Your task to perform on an android device: Clear the cart on bestbuy.com. Add "usb-c to usb-a" to the cart on bestbuy.com Image 0: 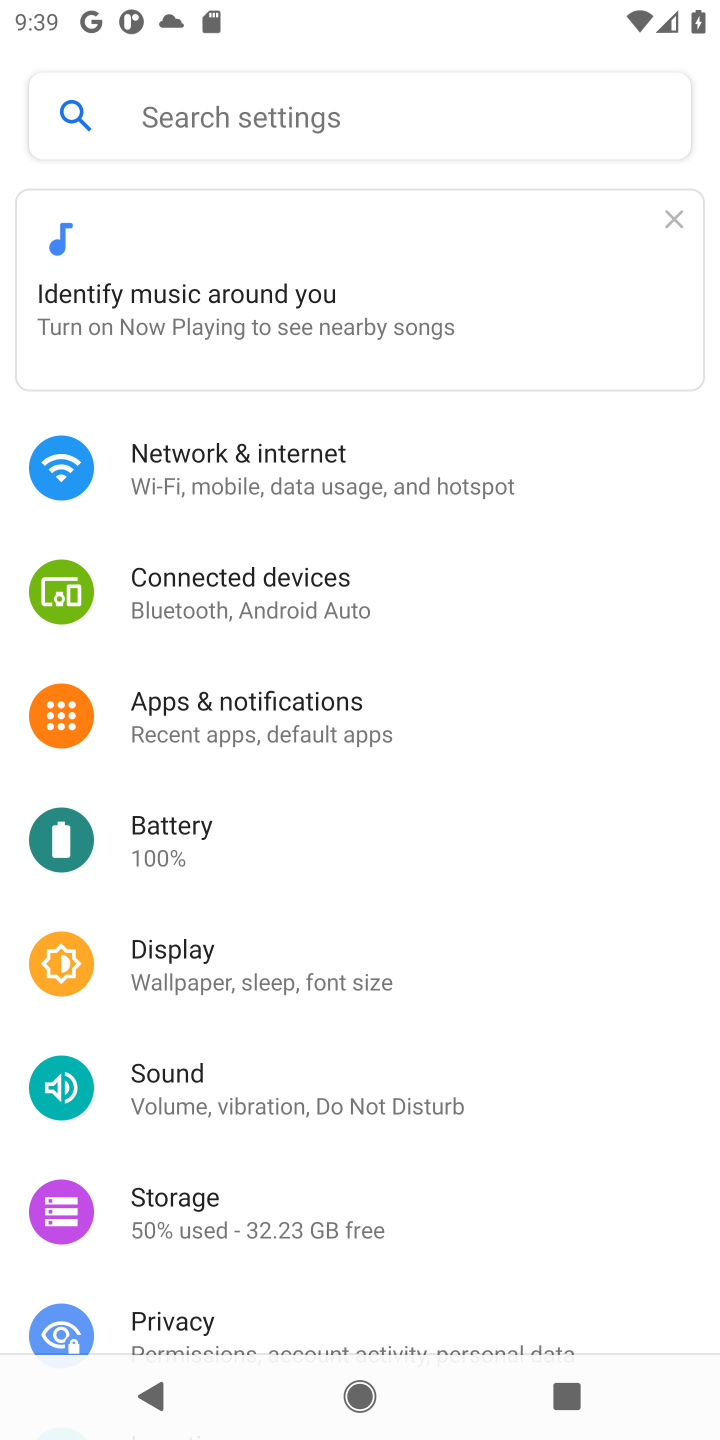
Step 0: press home button
Your task to perform on an android device: Clear the cart on bestbuy.com. Add "usb-c to usb-a" to the cart on bestbuy.com Image 1: 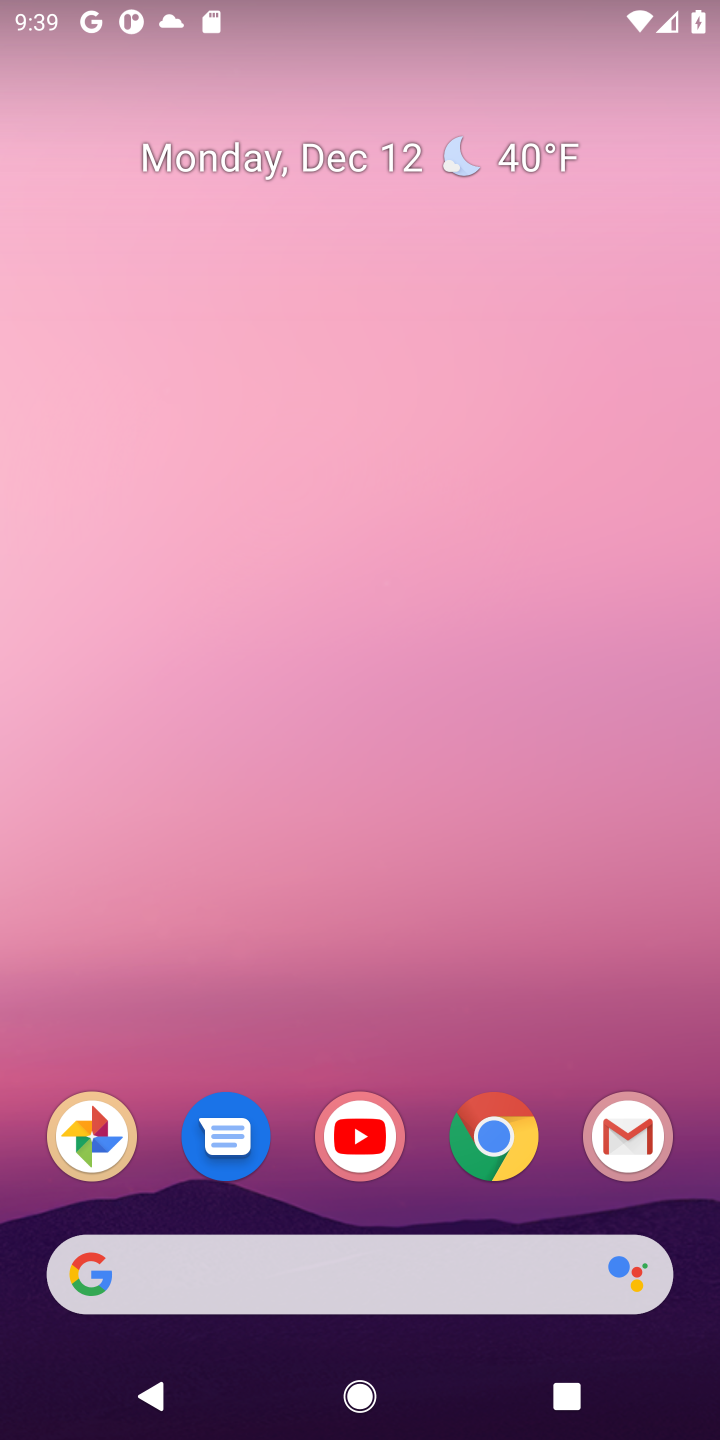
Step 1: click (497, 1143)
Your task to perform on an android device: Clear the cart on bestbuy.com. Add "usb-c to usb-a" to the cart on bestbuy.com Image 2: 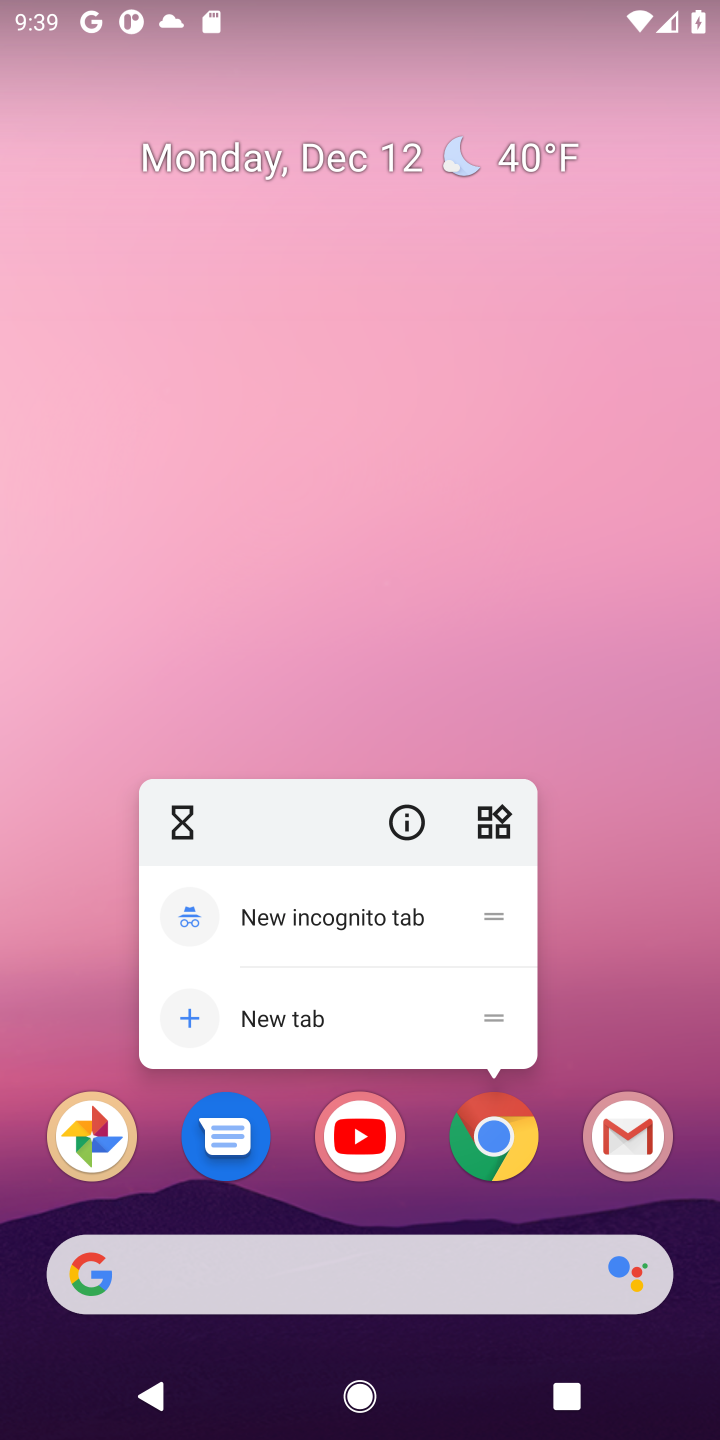
Step 2: click (497, 1143)
Your task to perform on an android device: Clear the cart on bestbuy.com. Add "usb-c to usb-a" to the cart on bestbuy.com Image 3: 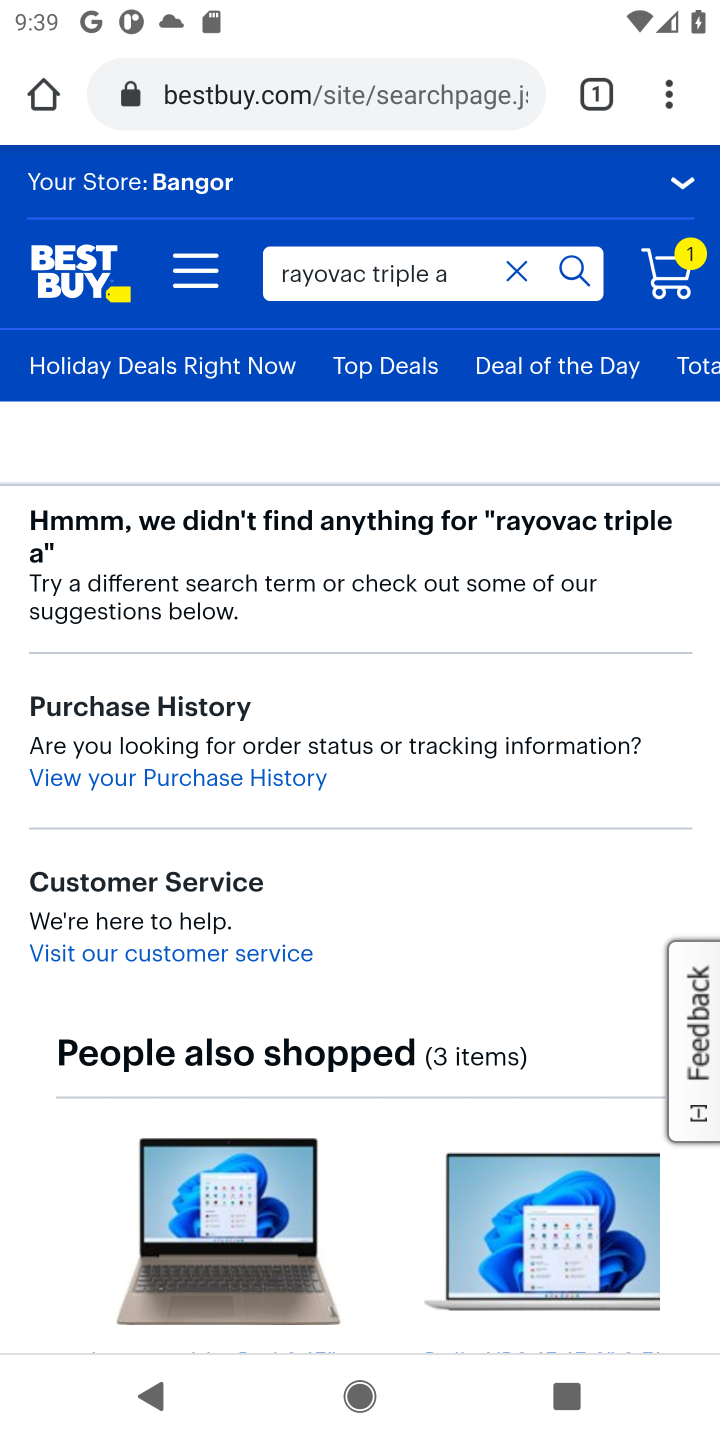
Step 3: click (683, 272)
Your task to perform on an android device: Clear the cart on bestbuy.com. Add "usb-c to usb-a" to the cart on bestbuy.com Image 4: 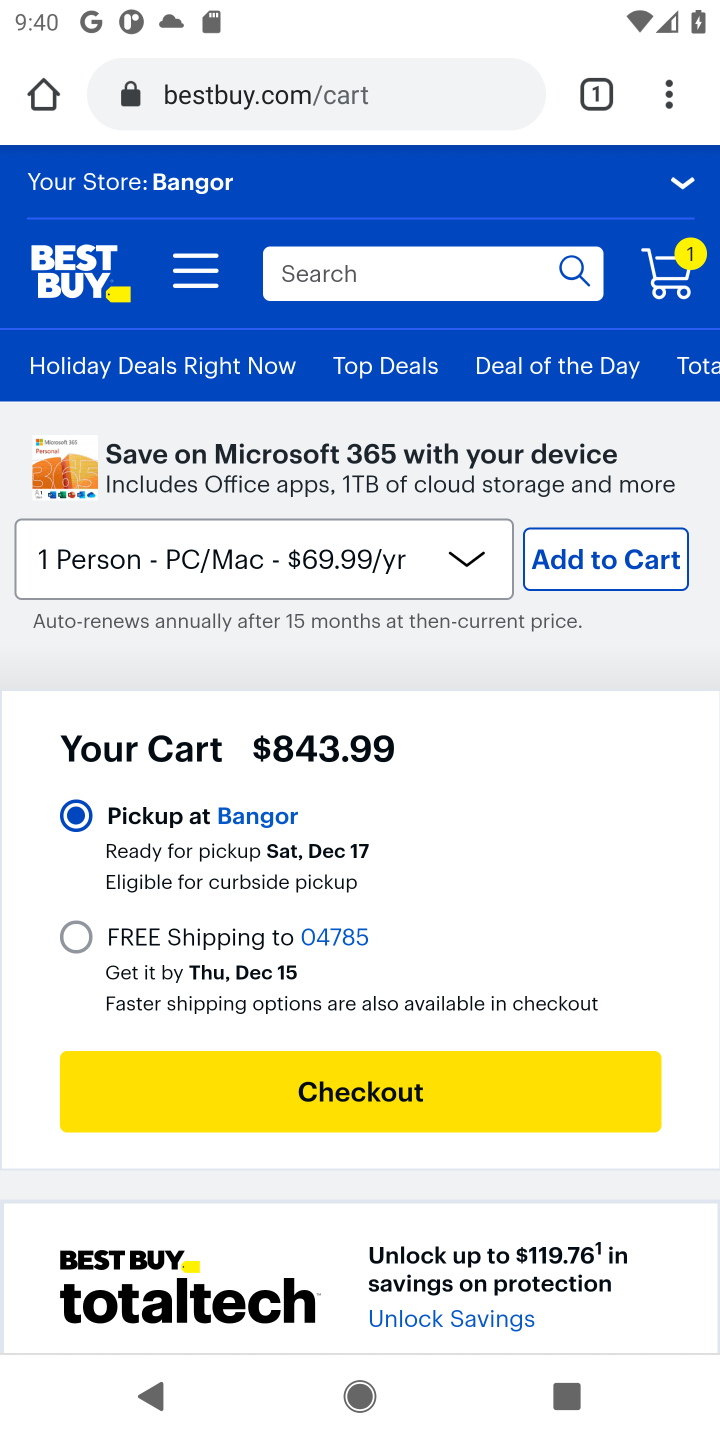
Step 4: drag from (346, 832) to (374, 314)
Your task to perform on an android device: Clear the cart on bestbuy.com. Add "usb-c to usb-a" to the cart on bestbuy.com Image 5: 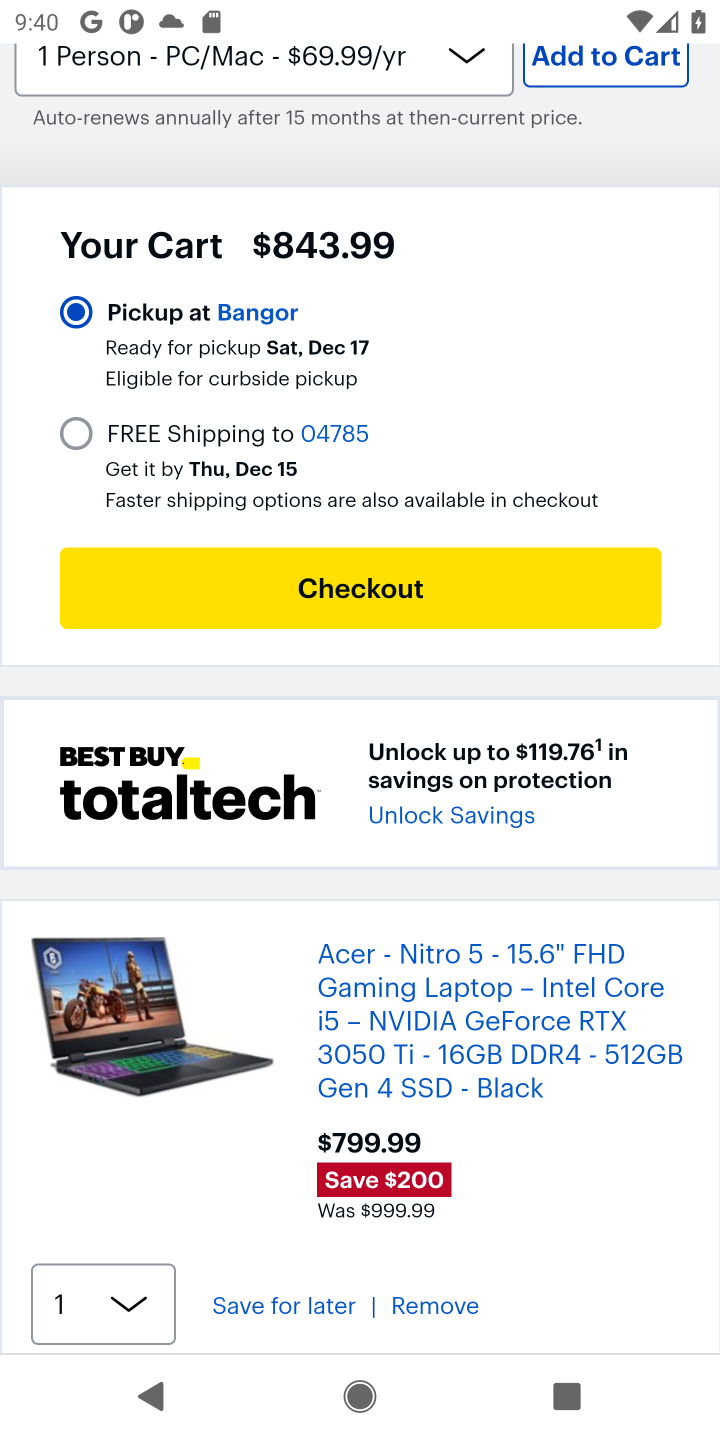
Step 5: click (410, 1306)
Your task to perform on an android device: Clear the cart on bestbuy.com. Add "usb-c to usb-a" to the cart on bestbuy.com Image 6: 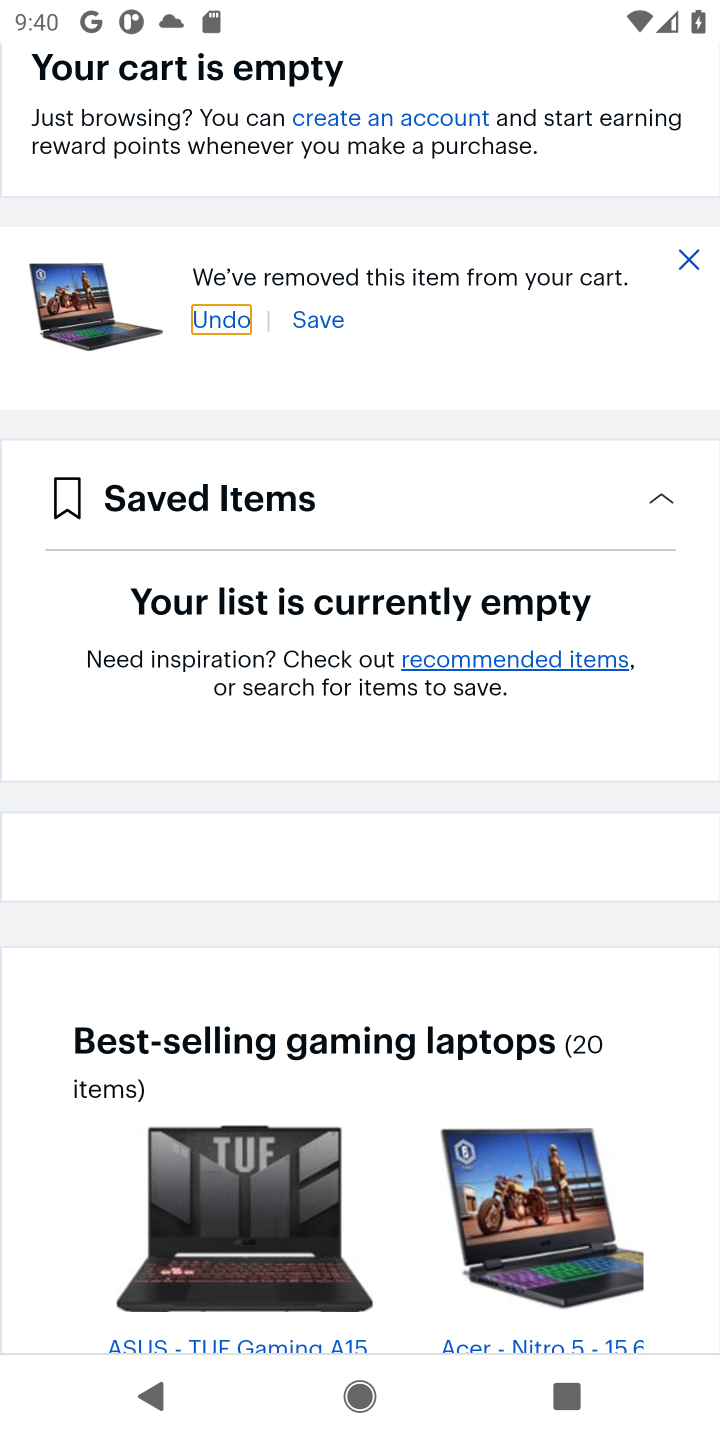
Step 6: drag from (443, 520) to (385, 910)
Your task to perform on an android device: Clear the cart on bestbuy.com. Add "usb-c to usb-a" to the cart on bestbuy.com Image 7: 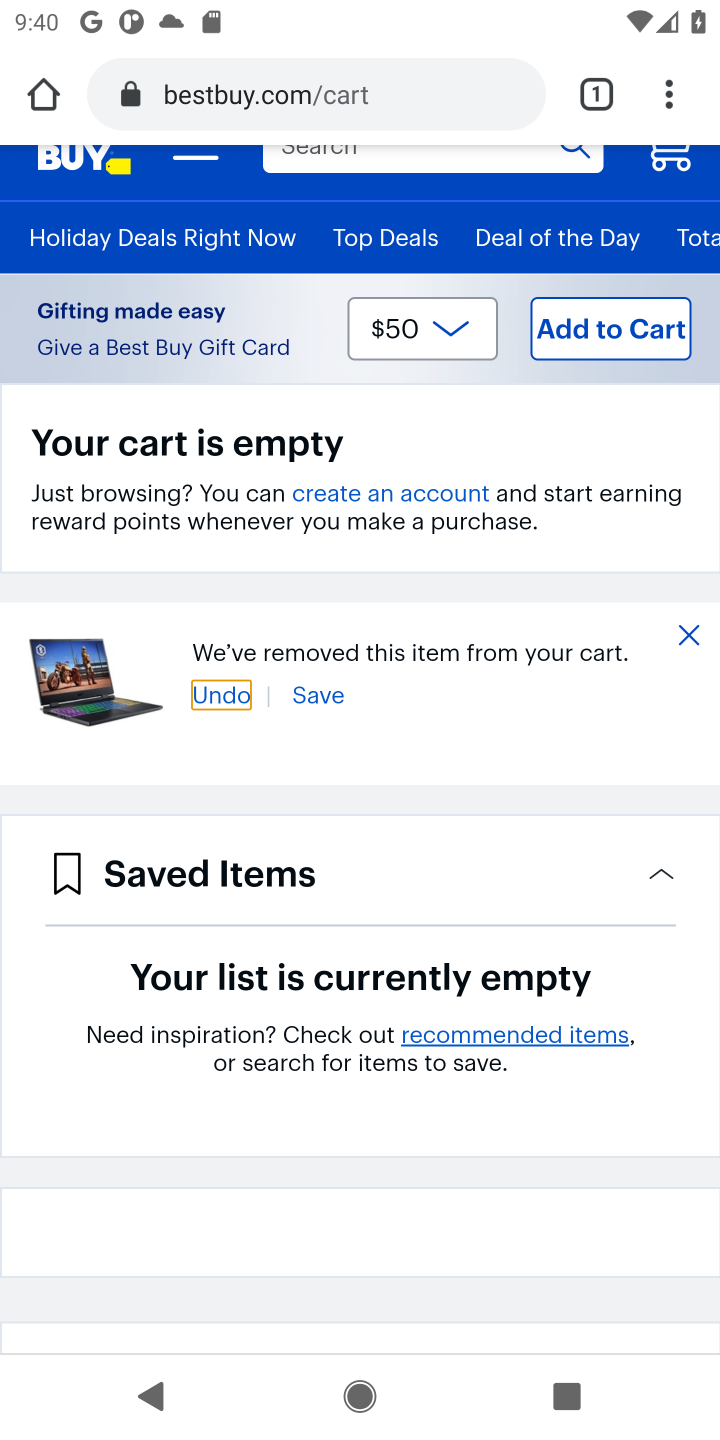
Step 7: drag from (268, 349) to (241, 626)
Your task to perform on an android device: Clear the cart on bestbuy.com. Add "usb-c to usb-a" to the cart on bestbuy.com Image 8: 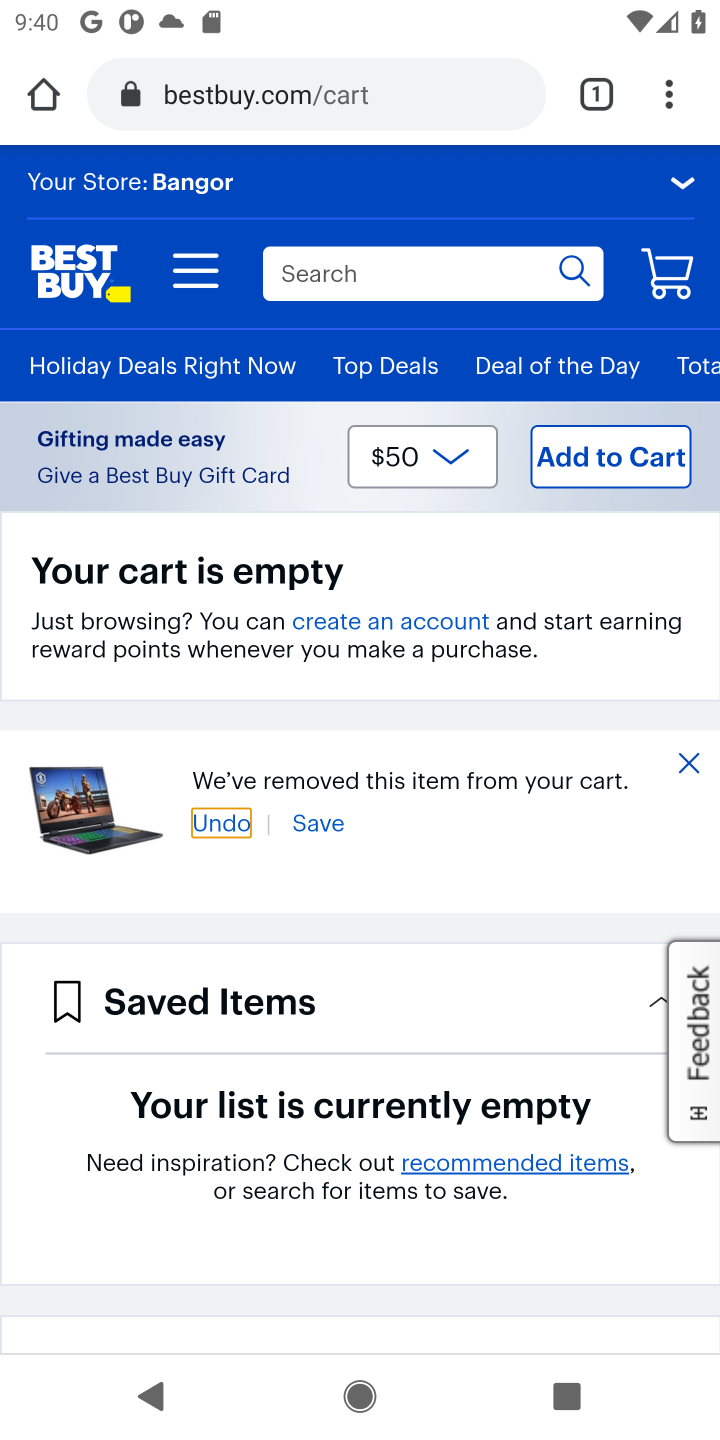
Step 8: click (319, 282)
Your task to perform on an android device: Clear the cart on bestbuy.com. Add "usb-c to usb-a" to the cart on bestbuy.com Image 9: 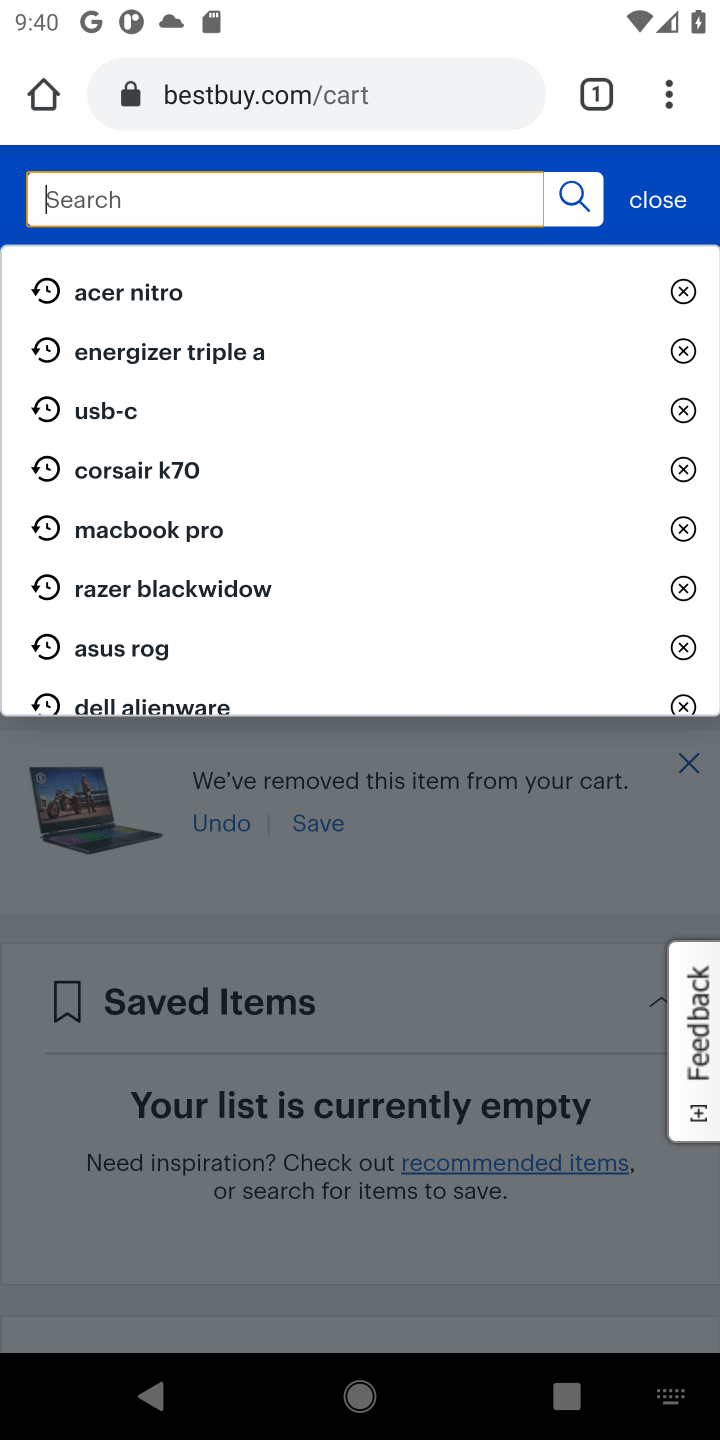
Step 9: type "usb-c to usb-a"
Your task to perform on an android device: Clear the cart on bestbuy.com. Add "usb-c to usb-a" to the cart on bestbuy.com Image 10: 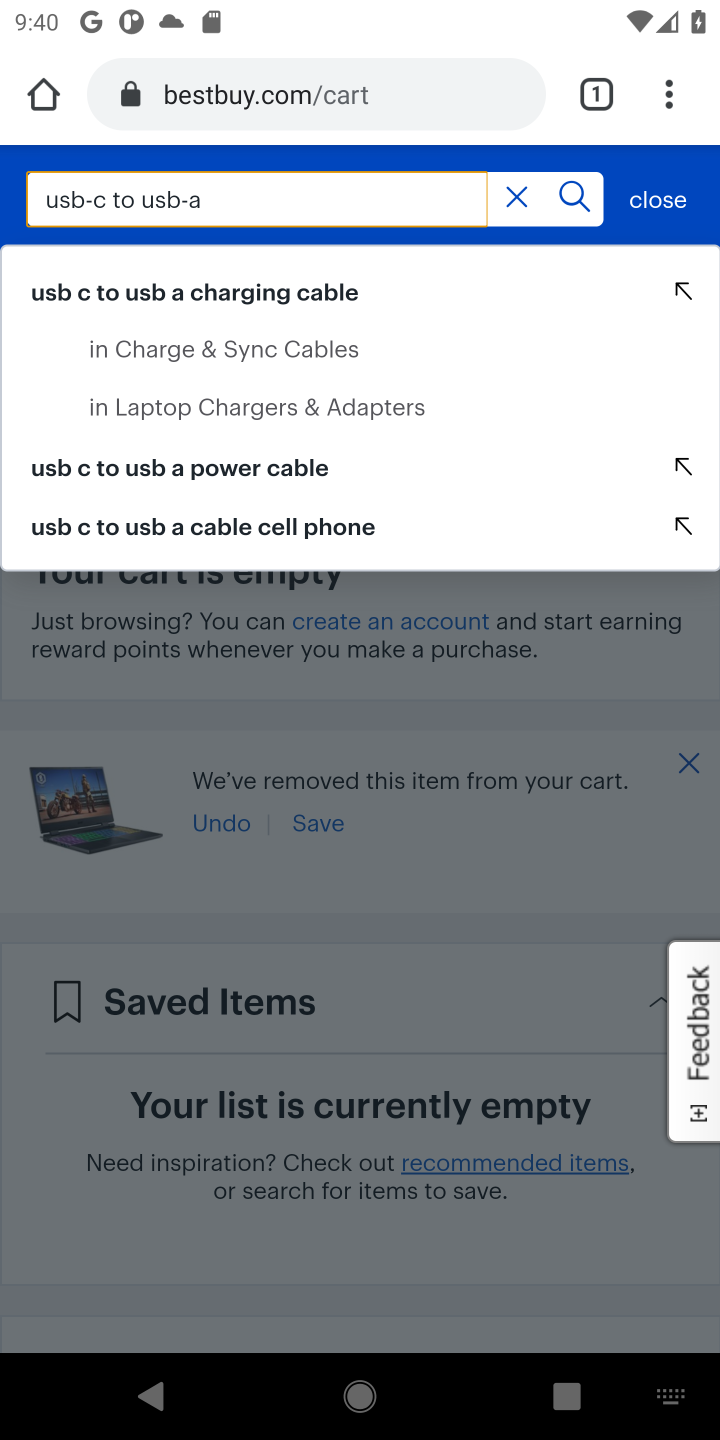
Step 10: click (223, 299)
Your task to perform on an android device: Clear the cart on bestbuy.com. Add "usb-c to usb-a" to the cart on bestbuy.com Image 11: 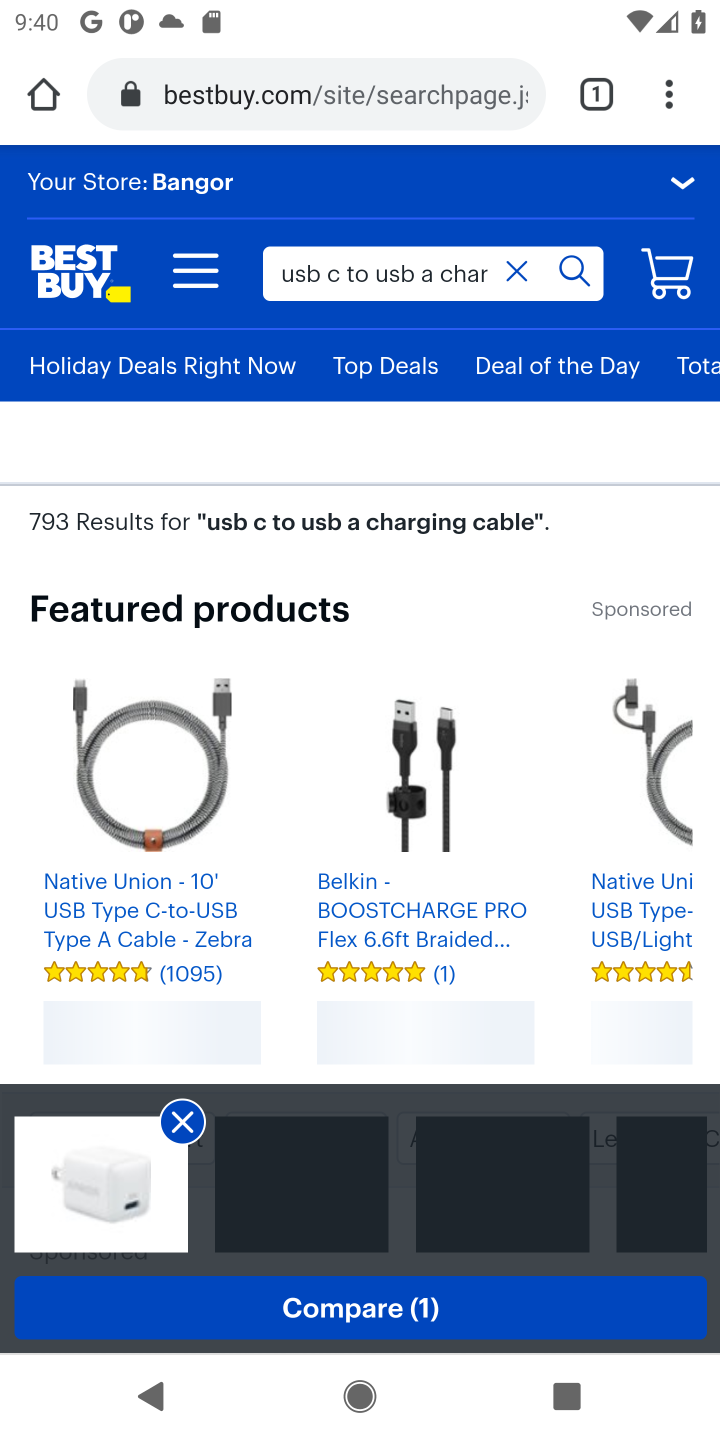
Step 11: click (172, 1118)
Your task to perform on an android device: Clear the cart on bestbuy.com. Add "usb-c to usb-a" to the cart on bestbuy.com Image 12: 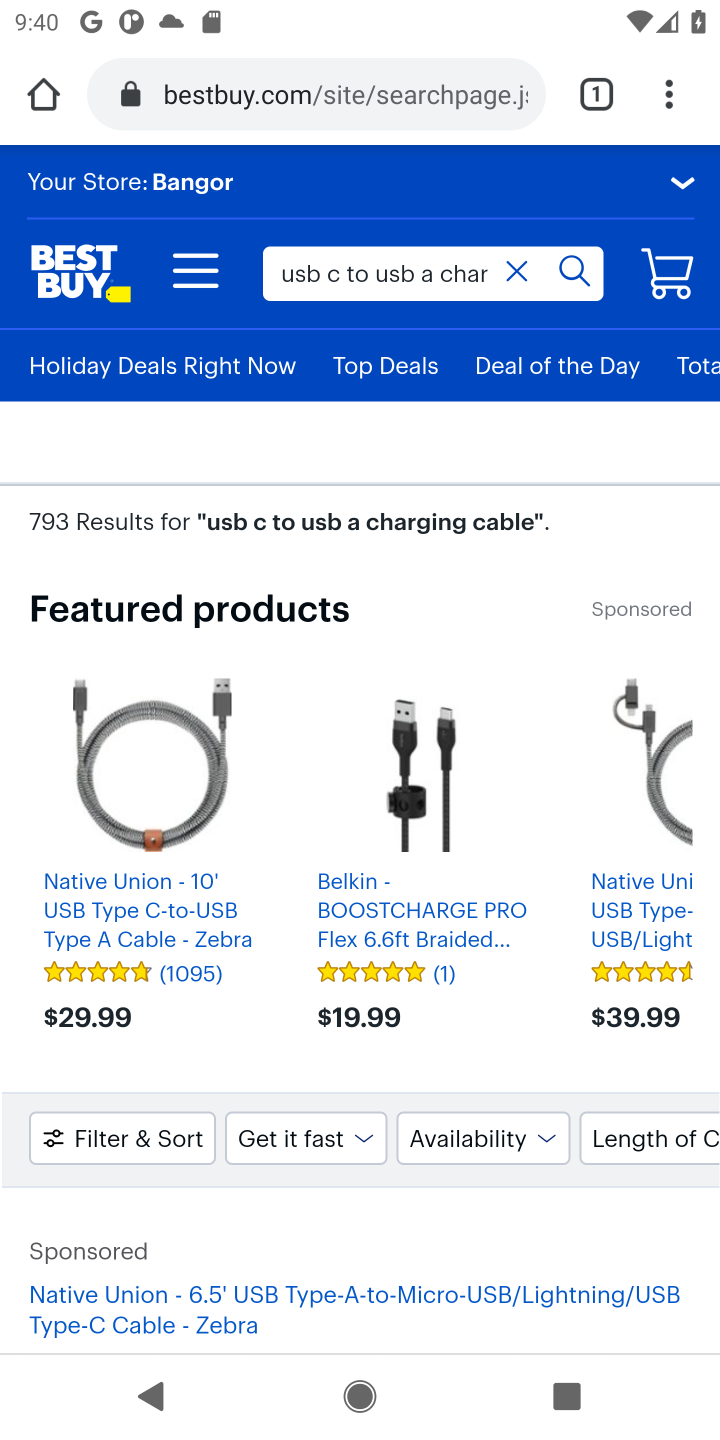
Step 12: drag from (298, 966) to (316, 440)
Your task to perform on an android device: Clear the cart on bestbuy.com. Add "usb-c to usb-a" to the cart on bestbuy.com Image 13: 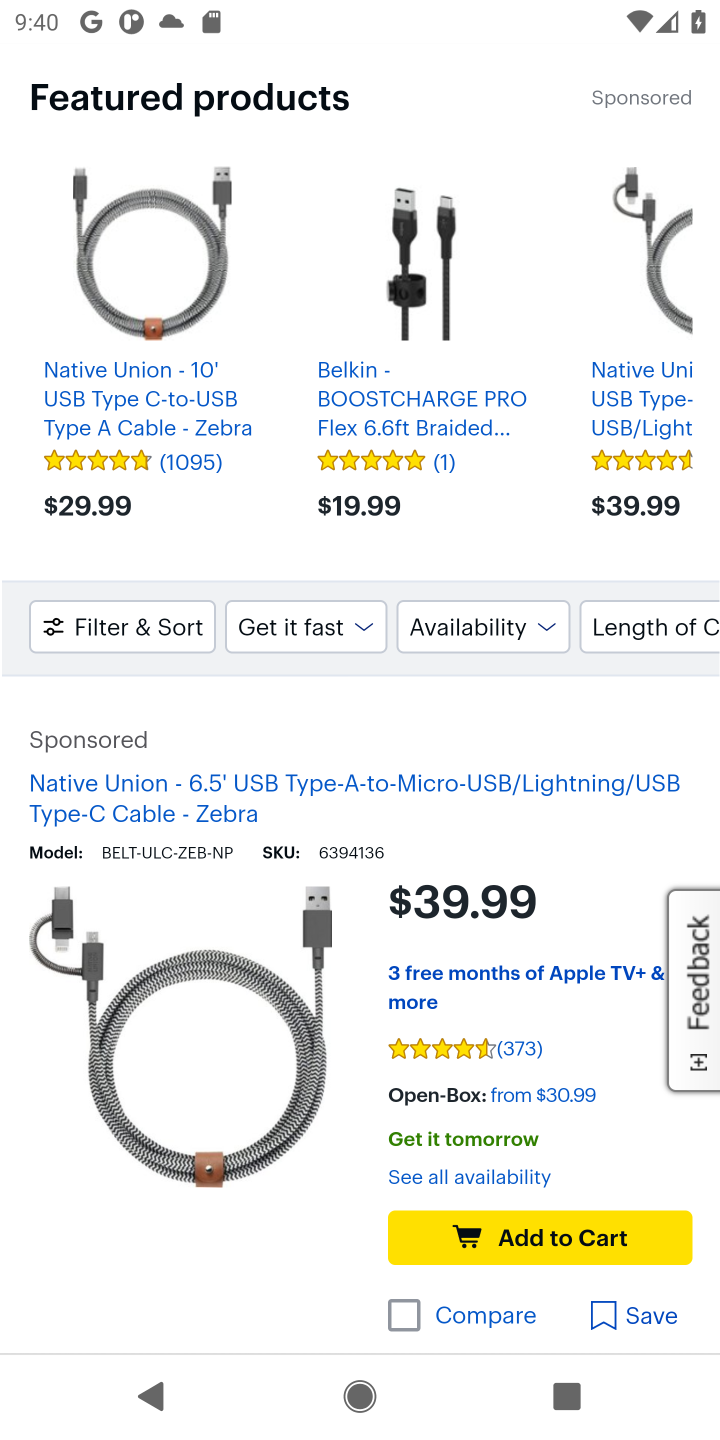
Step 13: drag from (372, 1046) to (415, 351)
Your task to perform on an android device: Clear the cart on bestbuy.com. Add "usb-c to usb-a" to the cart on bestbuy.com Image 14: 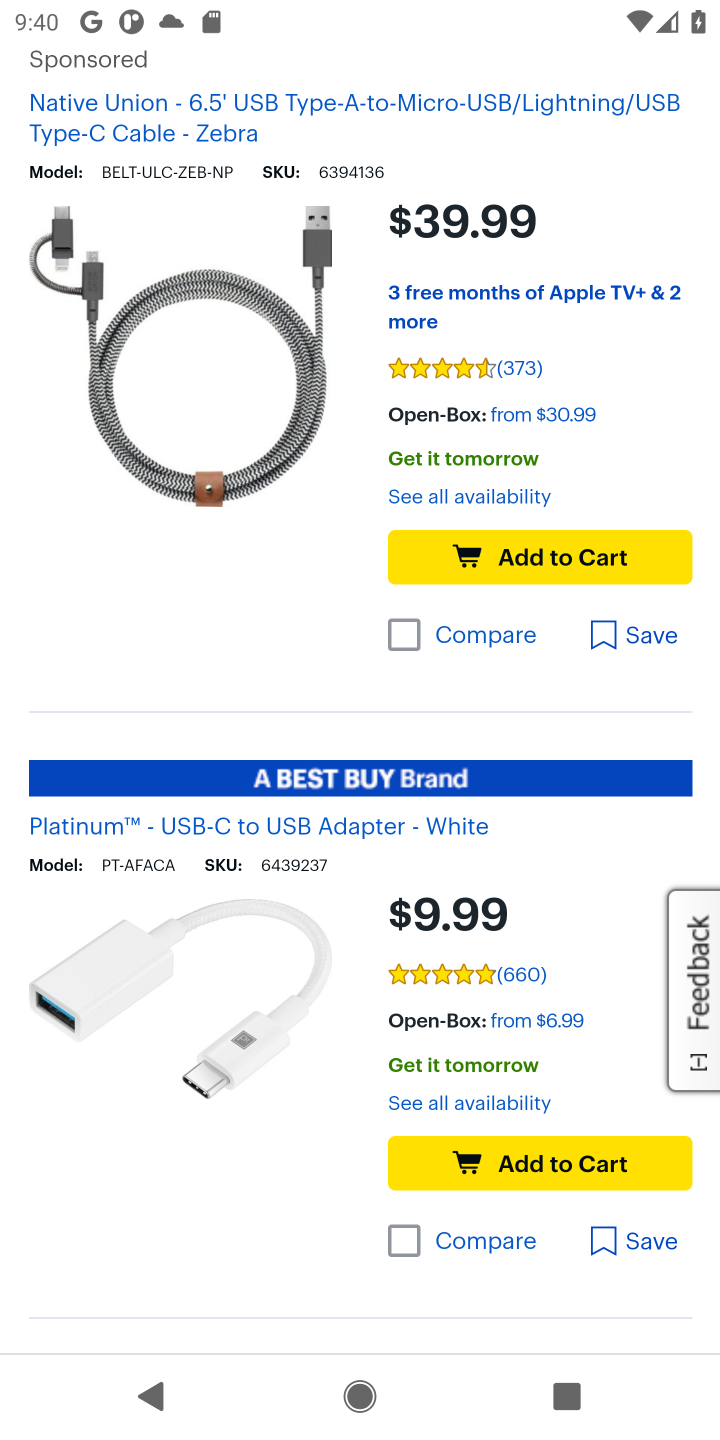
Step 14: drag from (250, 1104) to (262, 535)
Your task to perform on an android device: Clear the cart on bestbuy.com. Add "usb-c to usb-a" to the cart on bestbuy.com Image 15: 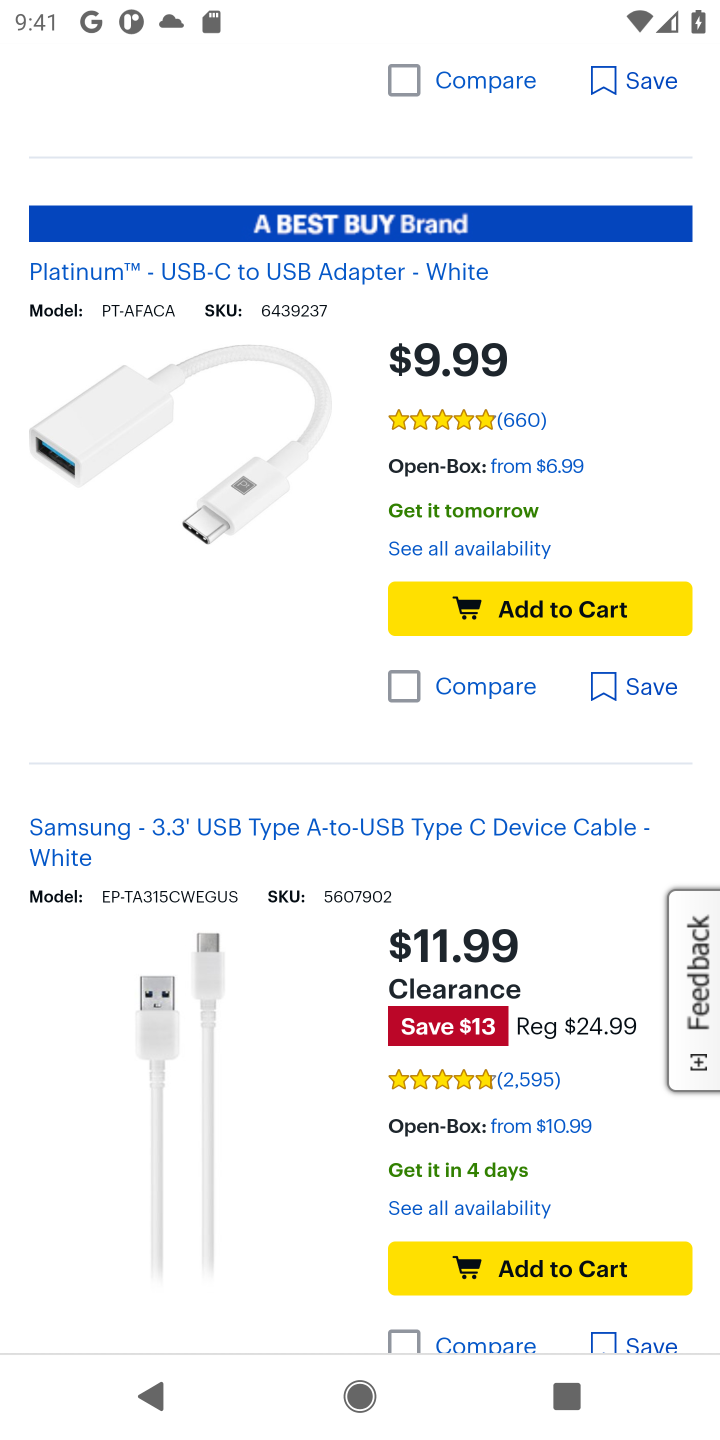
Step 15: drag from (228, 1048) to (236, 439)
Your task to perform on an android device: Clear the cart on bestbuy.com. Add "usb-c to usb-a" to the cart on bestbuy.com Image 16: 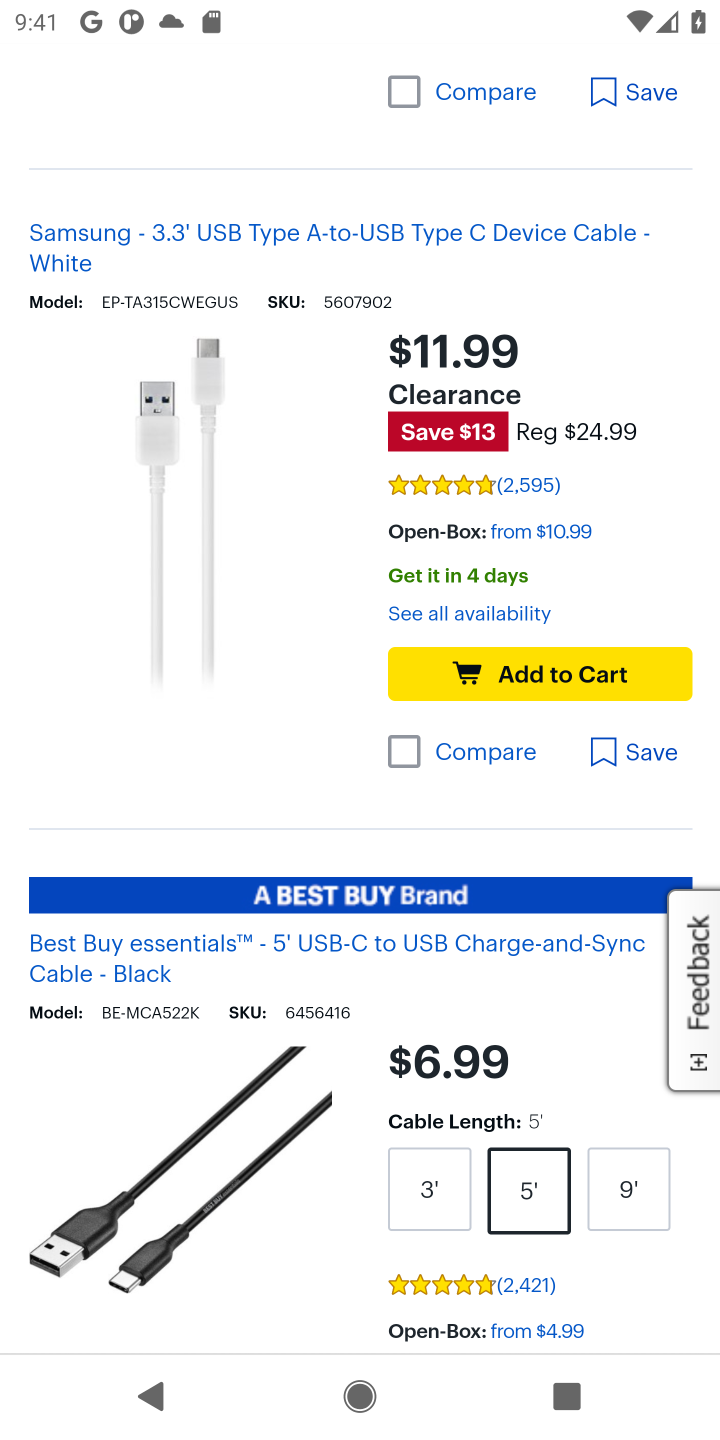
Step 16: drag from (201, 1118) to (192, 601)
Your task to perform on an android device: Clear the cart on bestbuy.com. Add "usb-c to usb-a" to the cart on bestbuy.com Image 17: 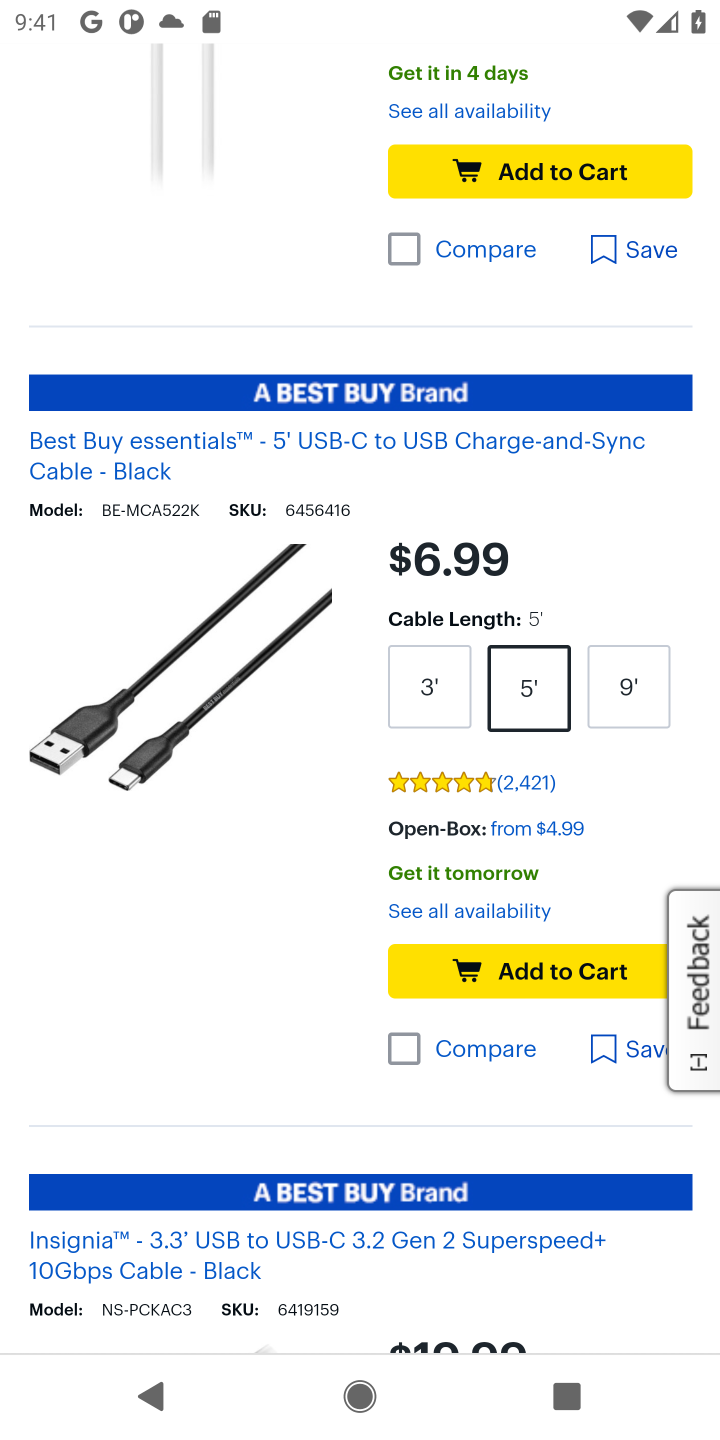
Step 17: drag from (190, 1084) to (232, 554)
Your task to perform on an android device: Clear the cart on bestbuy.com. Add "usb-c to usb-a" to the cart on bestbuy.com Image 18: 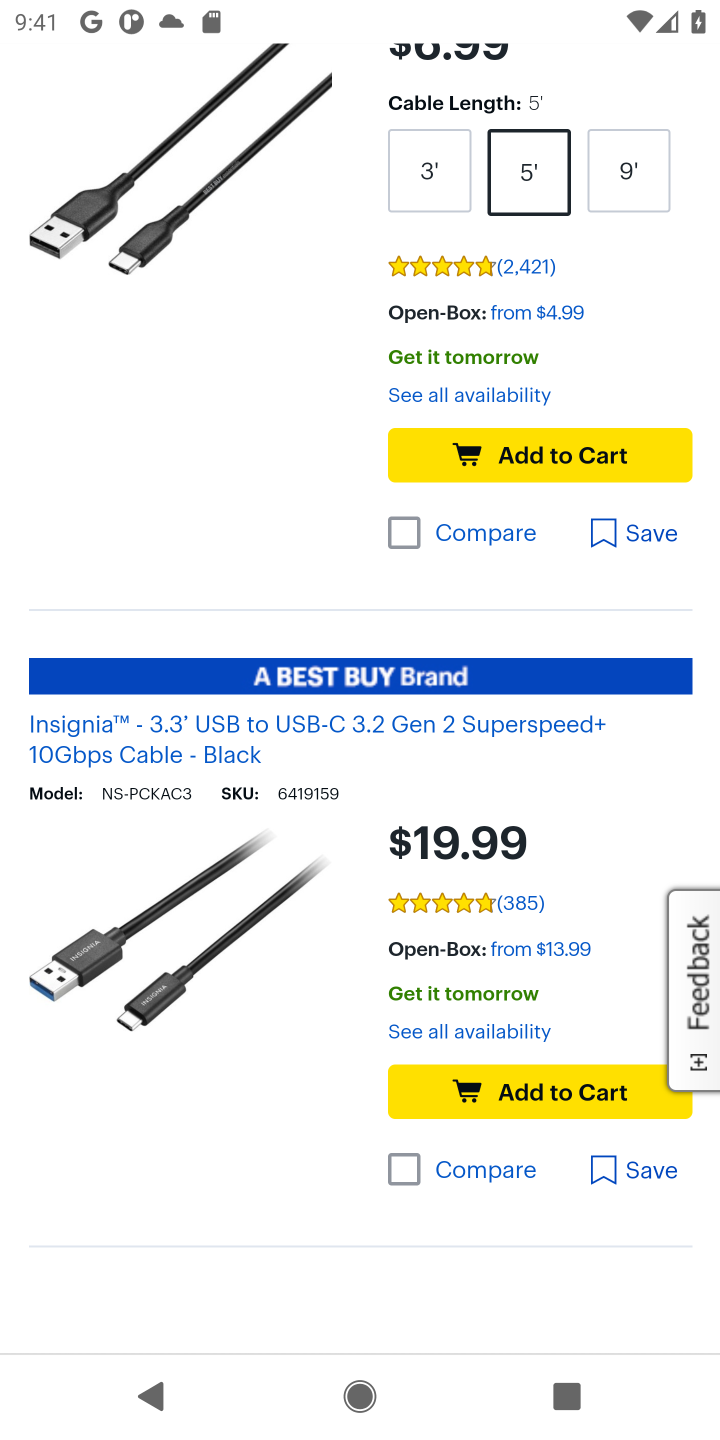
Step 18: drag from (281, 1012) to (275, 497)
Your task to perform on an android device: Clear the cart on bestbuy.com. Add "usb-c to usb-a" to the cart on bestbuy.com Image 19: 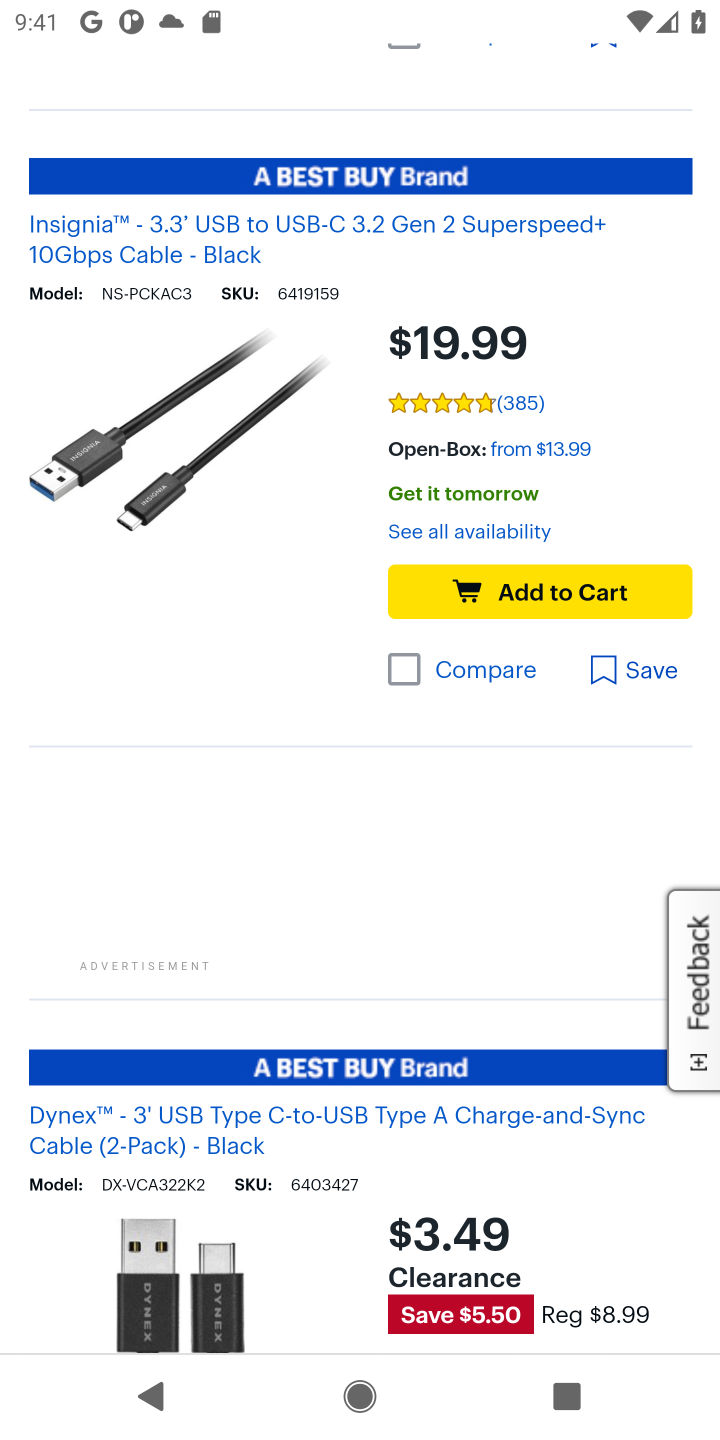
Step 19: drag from (337, 1205) to (270, 426)
Your task to perform on an android device: Clear the cart on bestbuy.com. Add "usb-c to usb-a" to the cart on bestbuy.com Image 20: 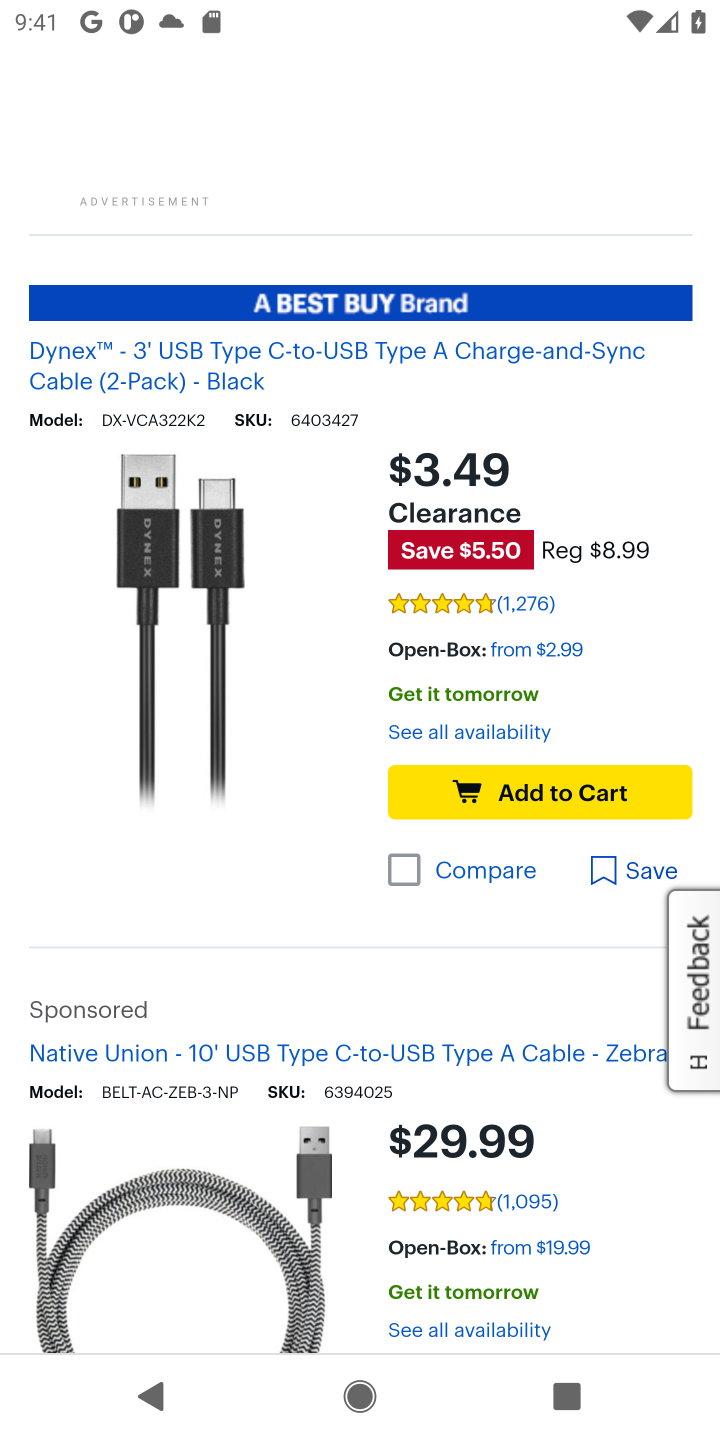
Step 20: click (507, 786)
Your task to perform on an android device: Clear the cart on bestbuy.com. Add "usb-c to usb-a" to the cart on bestbuy.com Image 21: 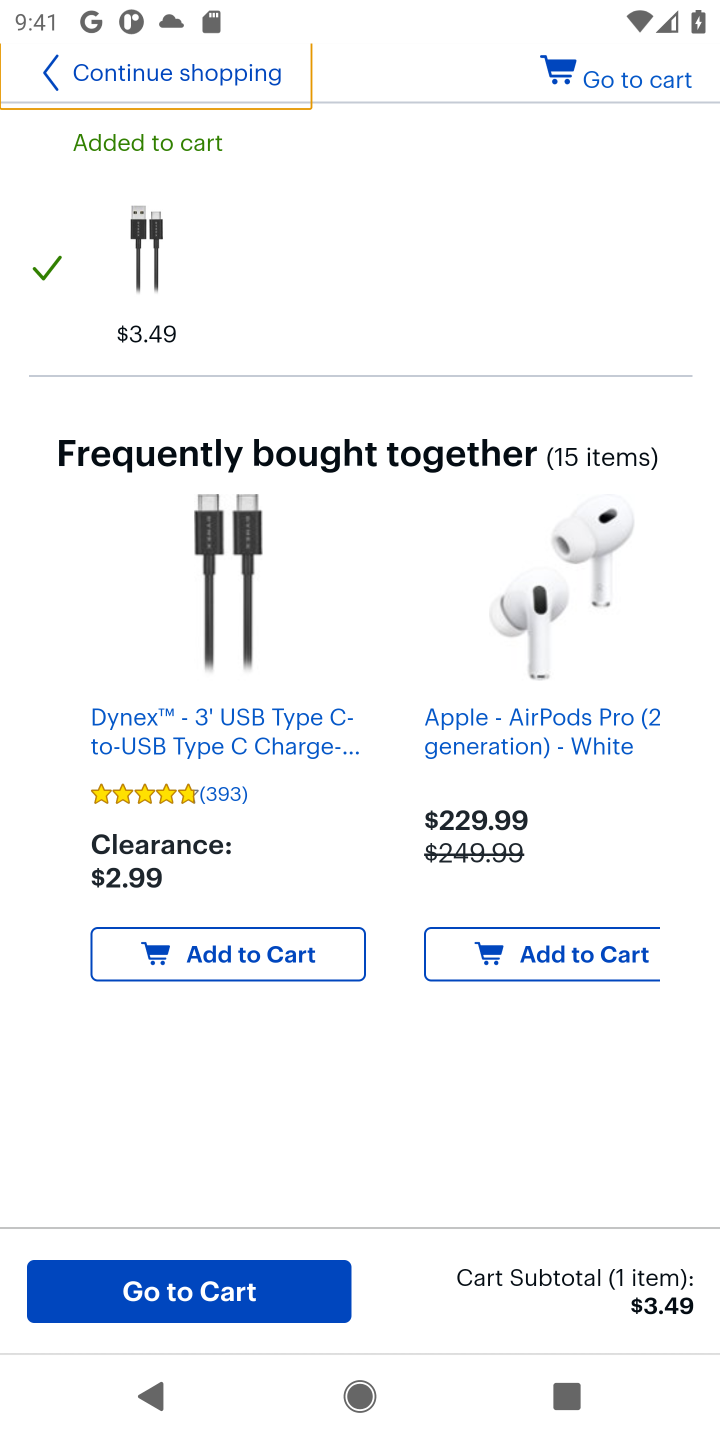
Step 21: task complete